Your task to perform on an android device: View the shopping cart on costco. Add "bose soundlink" to the cart on costco Image 0: 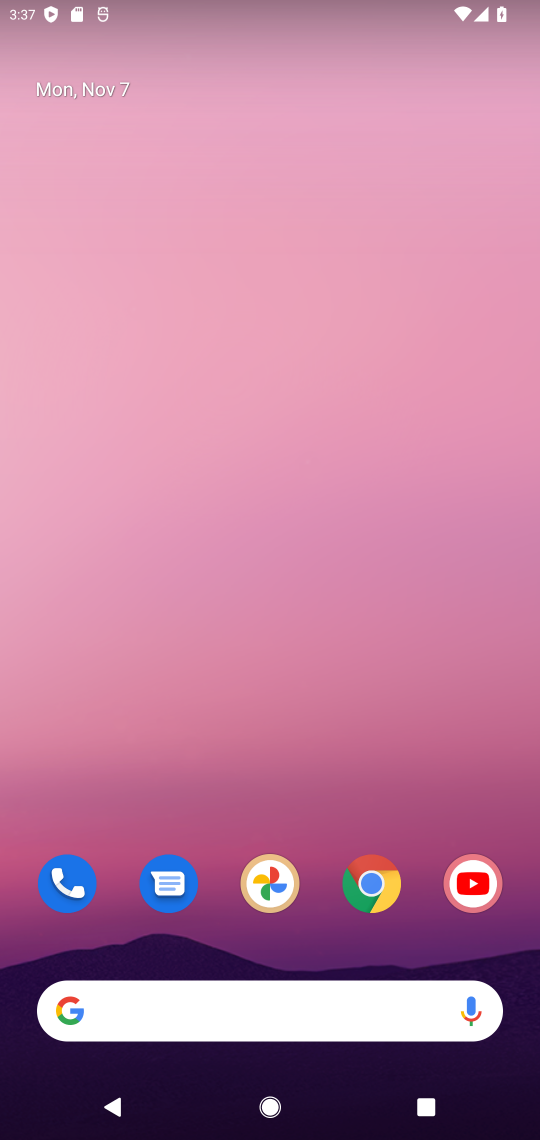
Step 0: click (366, 880)
Your task to perform on an android device: View the shopping cart on costco. Add "bose soundlink" to the cart on costco Image 1: 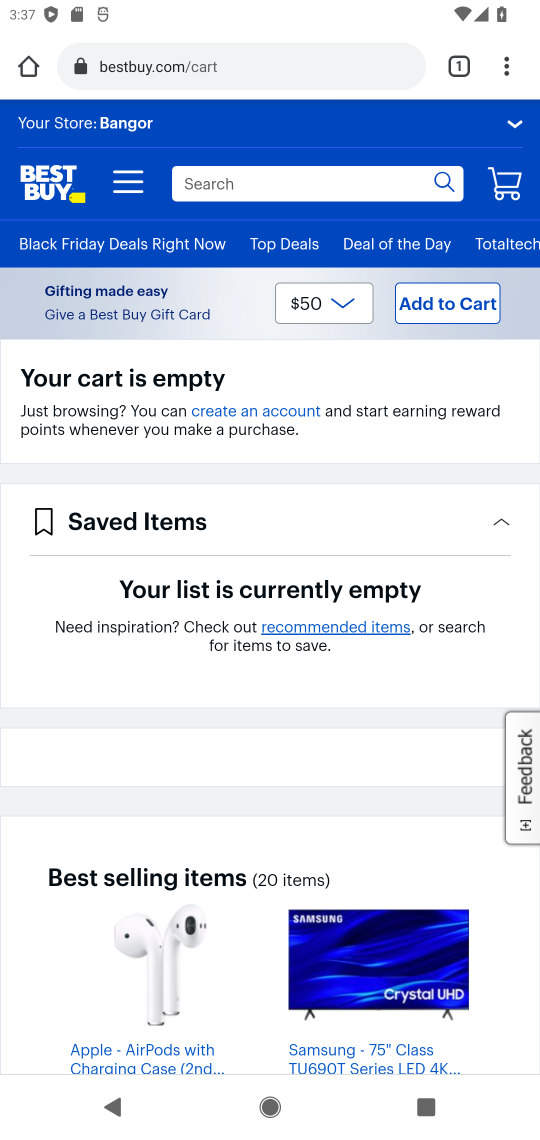
Step 1: click (212, 63)
Your task to perform on an android device: View the shopping cart on costco. Add "bose soundlink" to the cart on costco Image 2: 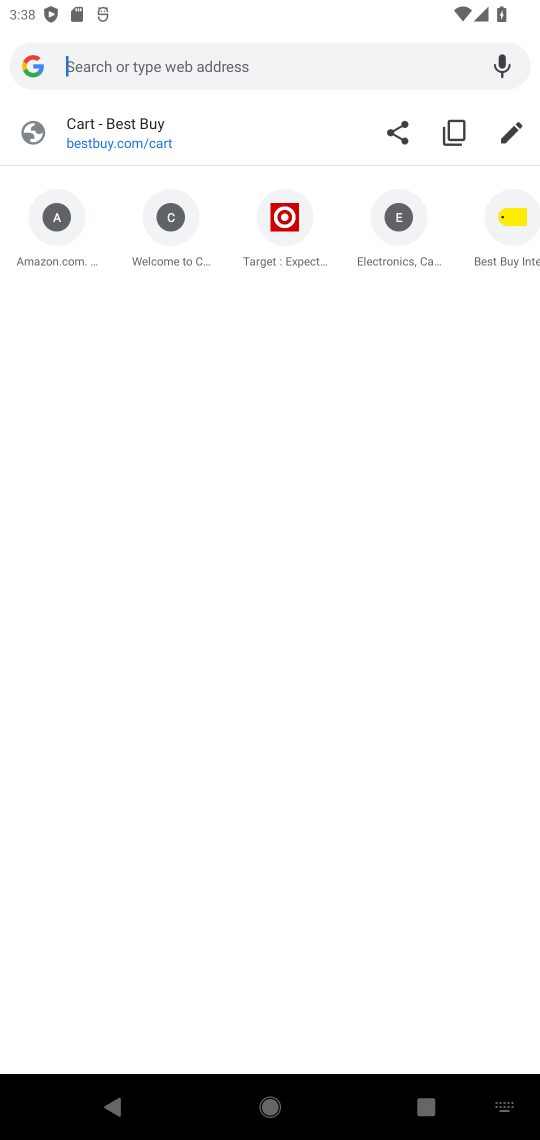
Step 2: type "costco"
Your task to perform on an android device: View the shopping cart on costco. Add "bose soundlink" to the cart on costco Image 3: 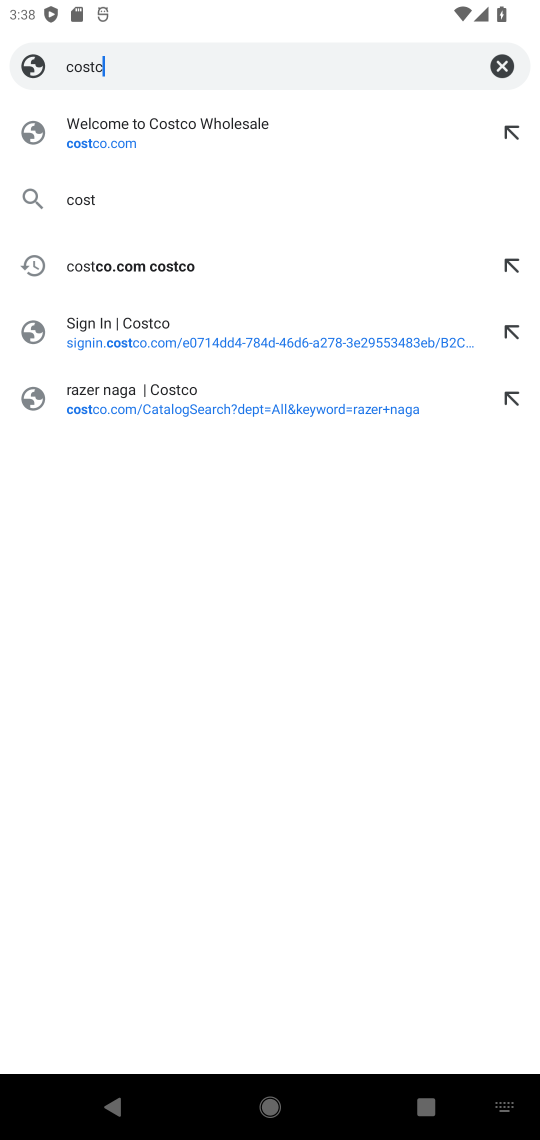
Step 3: press enter
Your task to perform on an android device: View the shopping cart on costco. Add "bose soundlink" to the cart on costco Image 4: 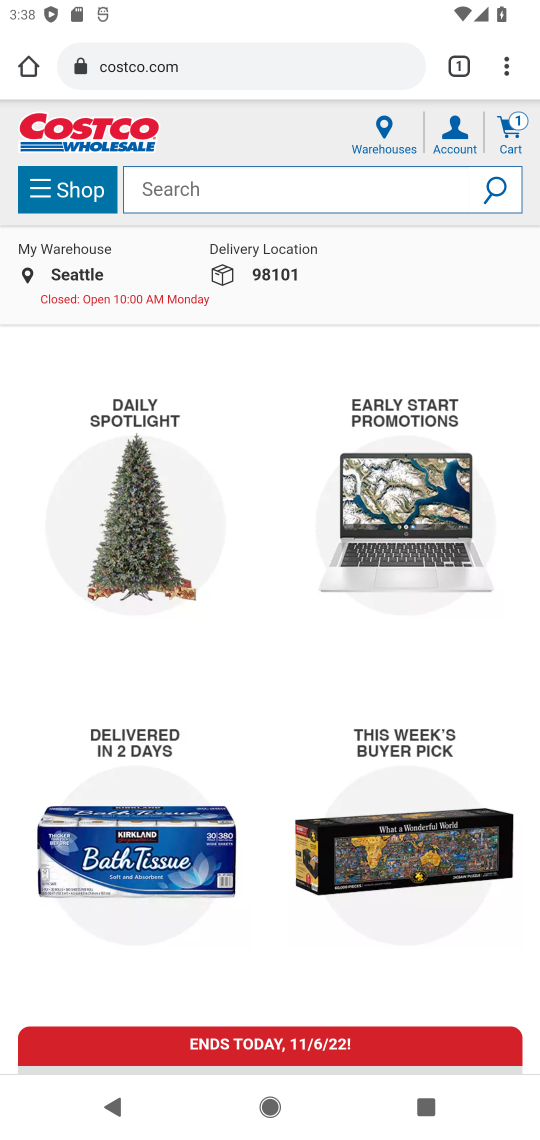
Step 4: click (187, 178)
Your task to perform on an android device: View the shopping cart on costco. Add "bose soundlink" to the cart on costco Image 5: 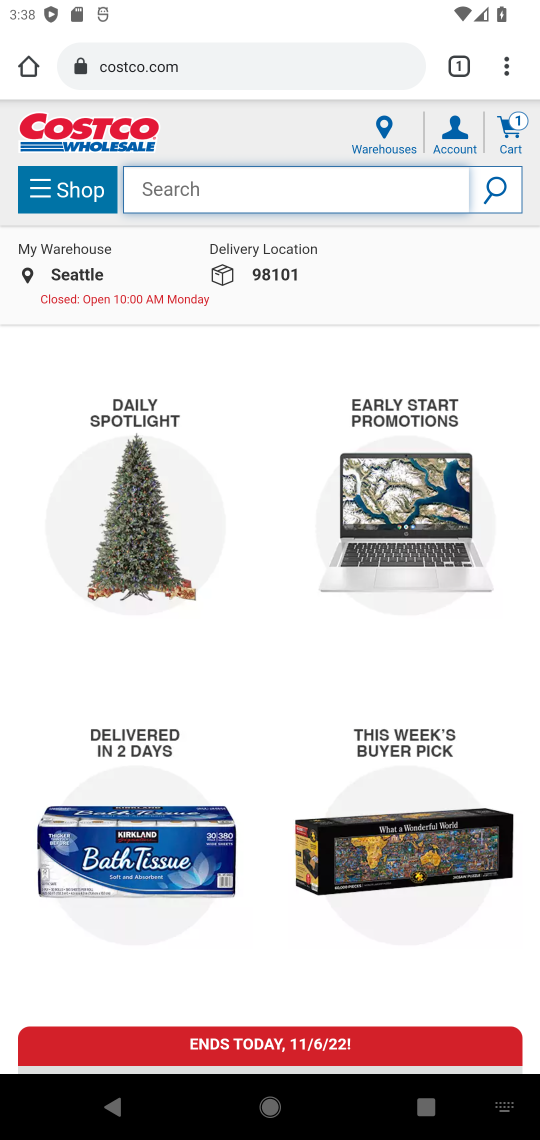
Step 5: type "bose soundlink"
Your task to perform on an android device: View the shopping cart on costco. Add "bose soundlink" to the cart on costco Image 6: 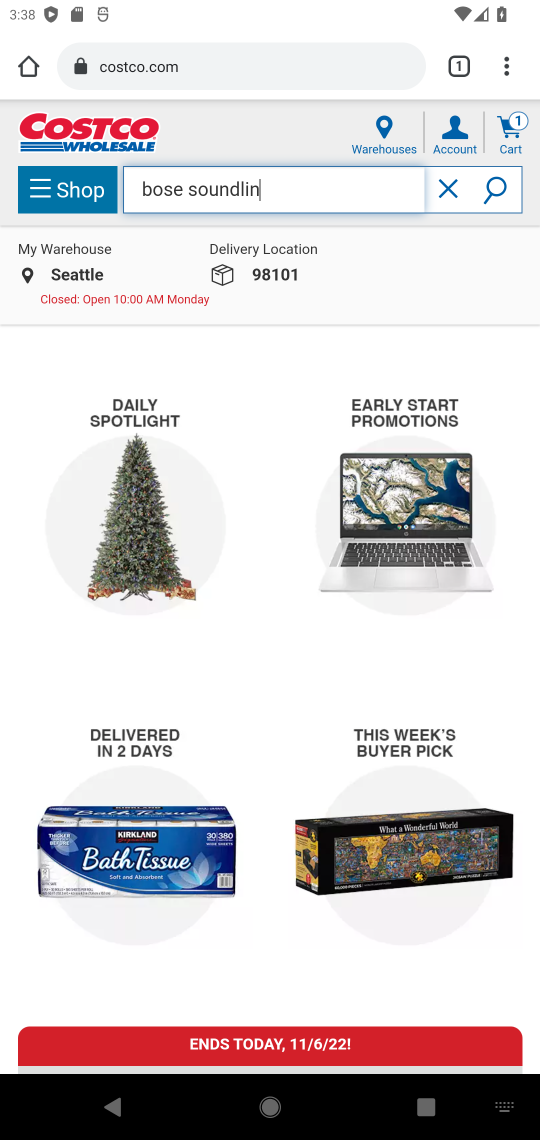
Step 6: press enter
Your task to perform on an android device: View the shopping cart on costco. Add "bose soundlink" to the cart on costco Image 7: 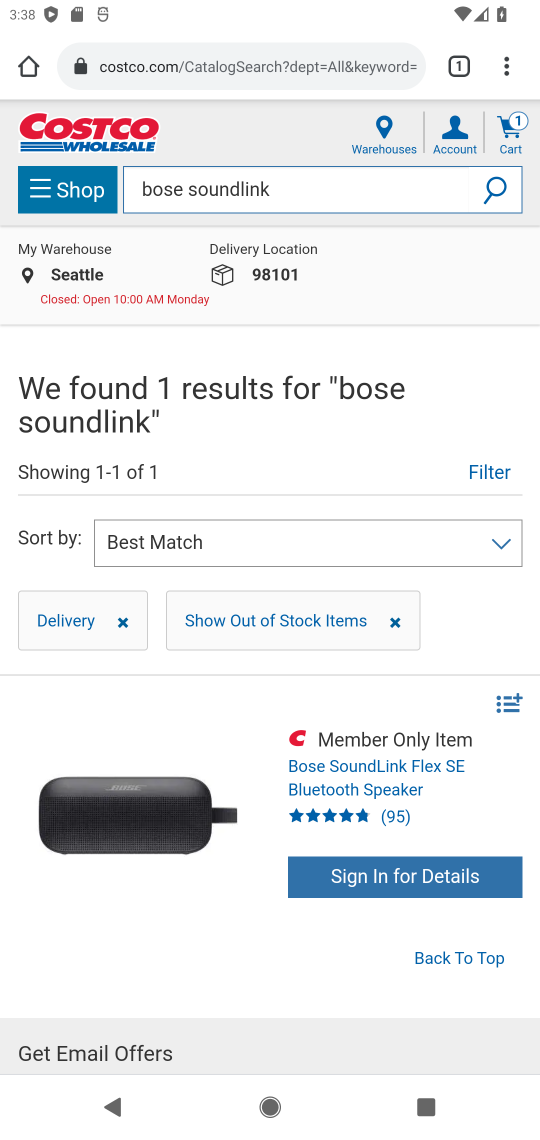
Step 7: drag from (232, 879) to (328, 675)
Your task to perform on an android device: View the shopping cart on costco. Add "bose soundlink" to the cart on costco Image 8: 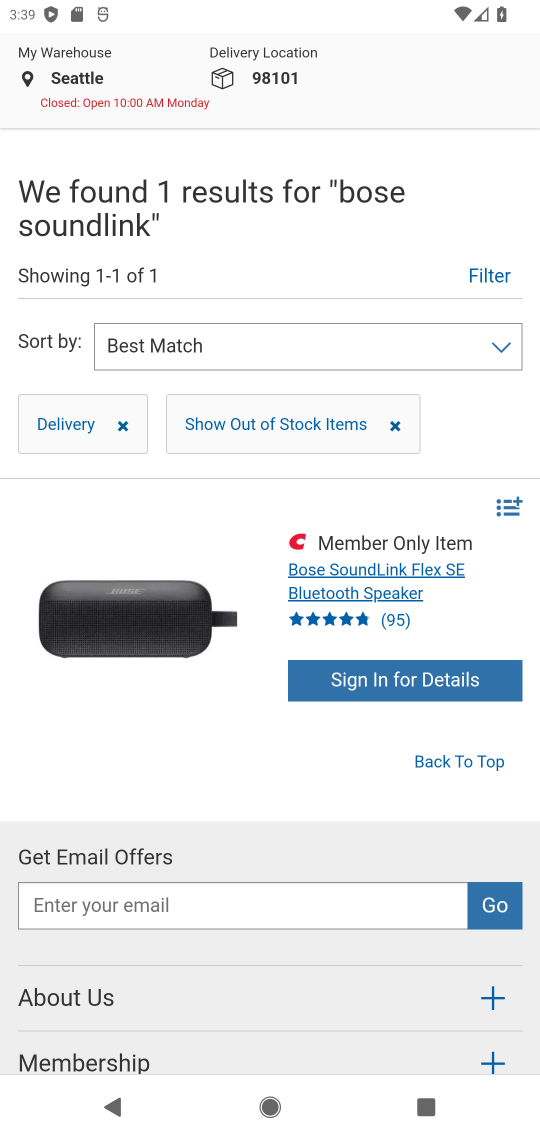
Step 8: click (438, 545)
Your task to perform on an android device: View the shopping cart on costco. Add "bose soundlink" to the cart on costco Image 9: 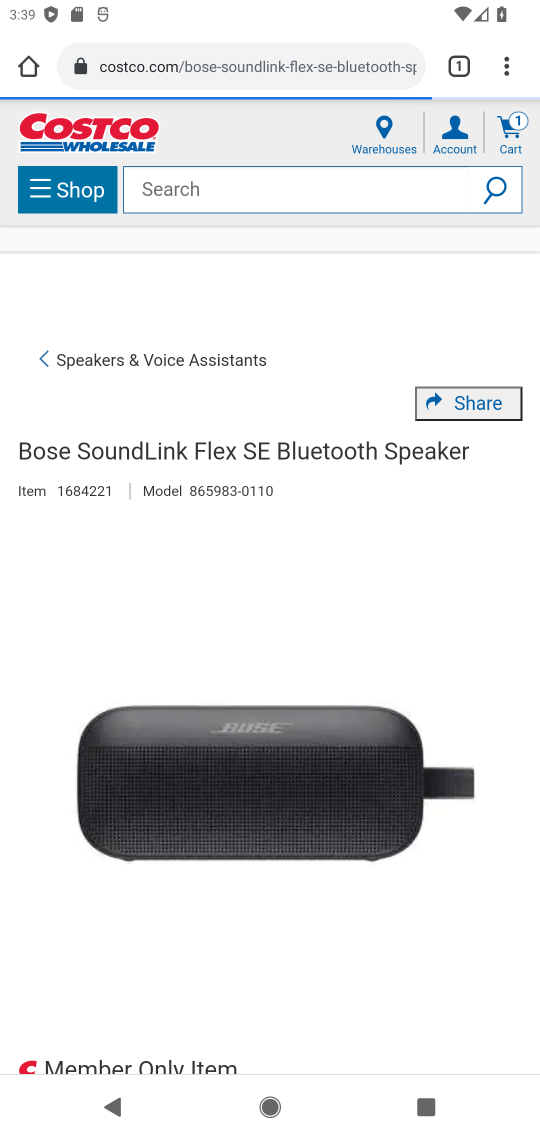
Step 9: task complete